Your task to perform on an android device: change the clock style Image 0: 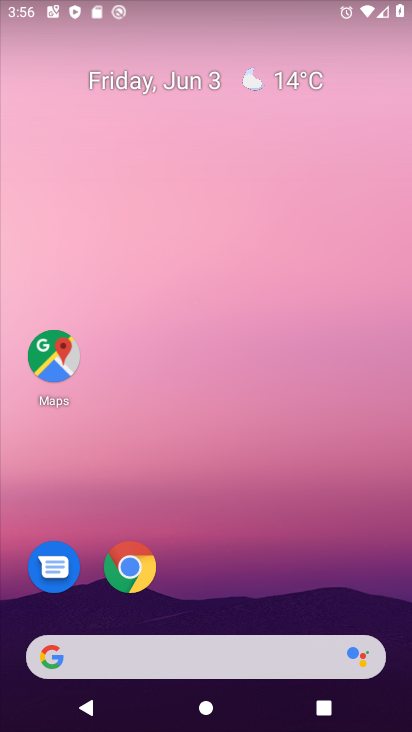
Step 0: drag from (258, 689) to (290, 277)
Your task to perform on an android device: change the clock style Image 1: 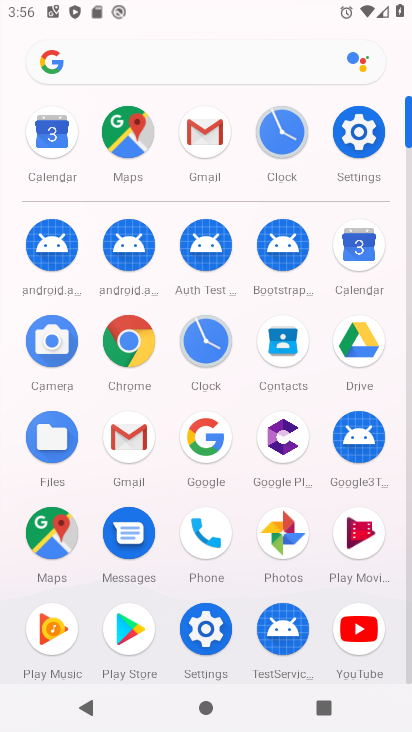
Step 1: click (202, 344)
Your task to perform on an android device: change the clock style Image 2: 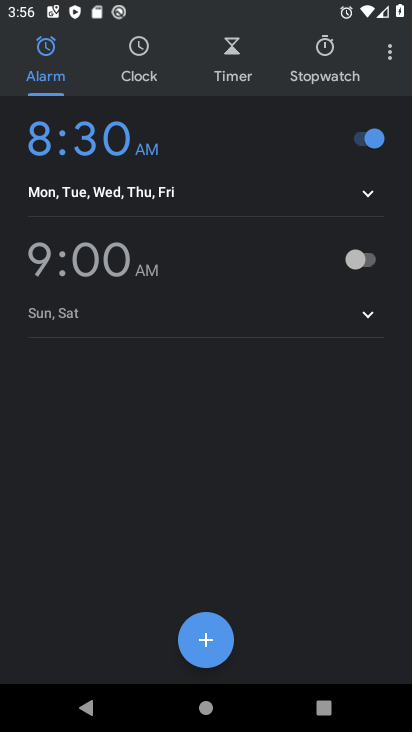
Step 2: click (382, 54)
Your task to perform on an android device: change the clock style Image 3: 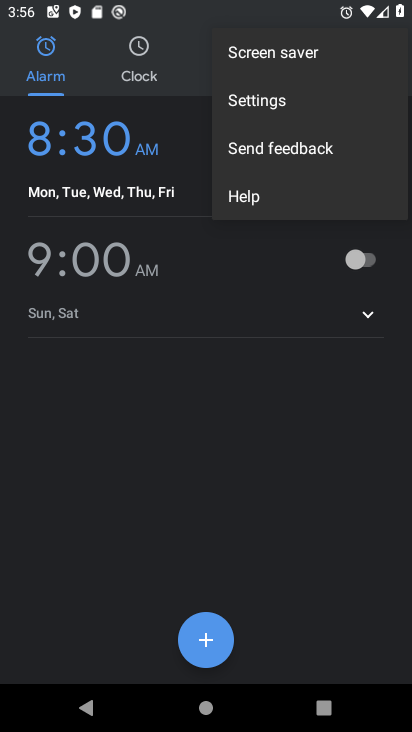
Step 3: click (281, 109)
Your task to perform on an android device: change the clock style Image 4: 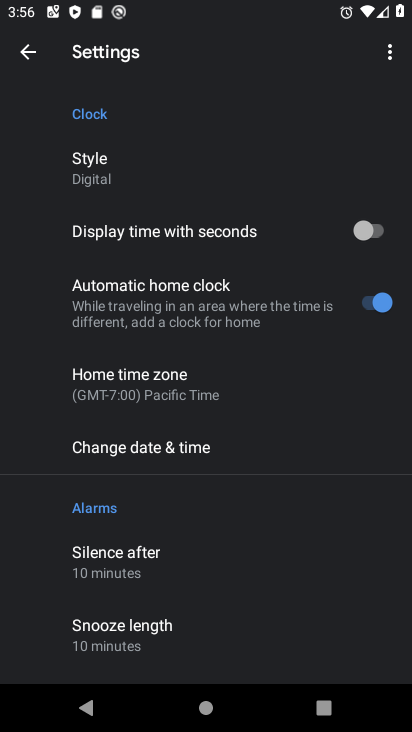
Step 4: click (139, 176)
Your task to perform on an android device: change the clock style Image 5: 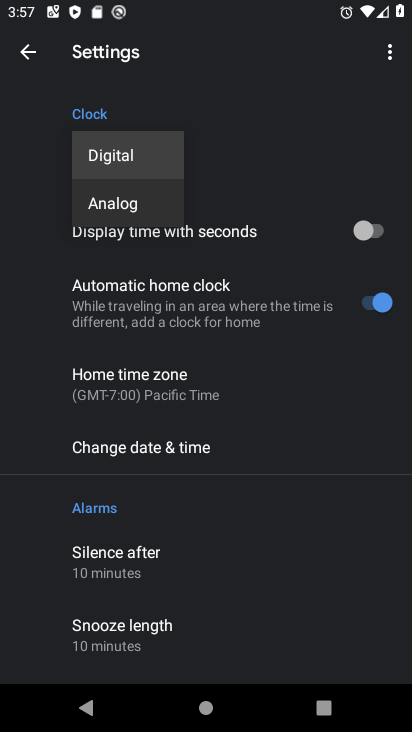
Step 5: click (126, 209)
Your task to perform on an android device: change the clock style Image 6: 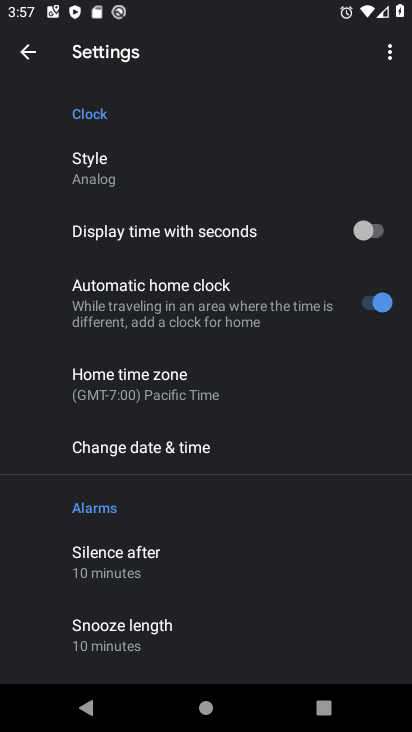
Step 6: task complete